Your task to perform on an android device: Do I have any events this weekend? Image 0: 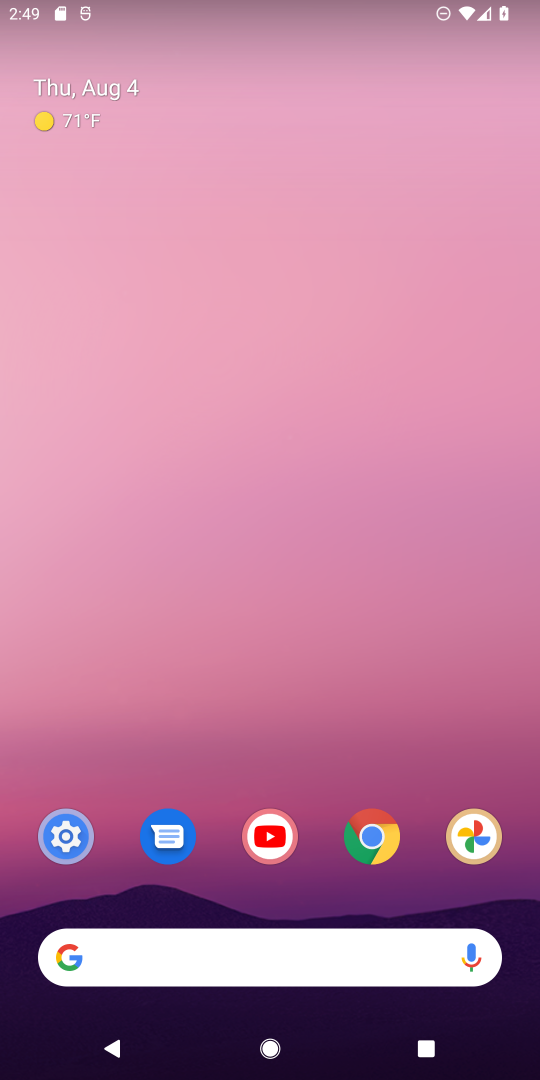
Step 0: drag from (218, 1013) to (244, 295)
Your task to perform on an android device: Do I have any events this weekend? Image 1: 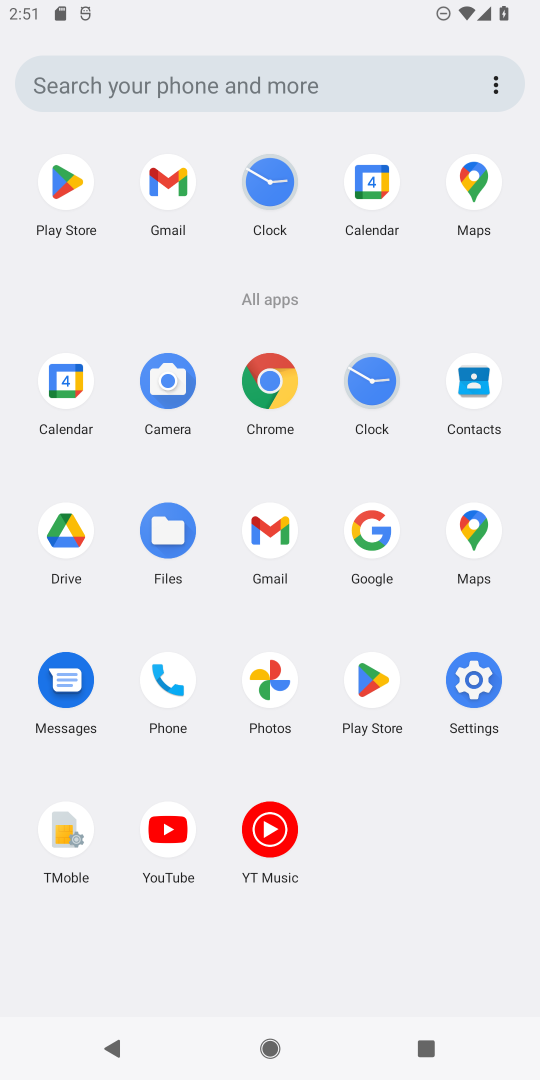
Step 1: click (72, 388)
Your task to perform on an android device: Do I have any events this weekend? Image 2: 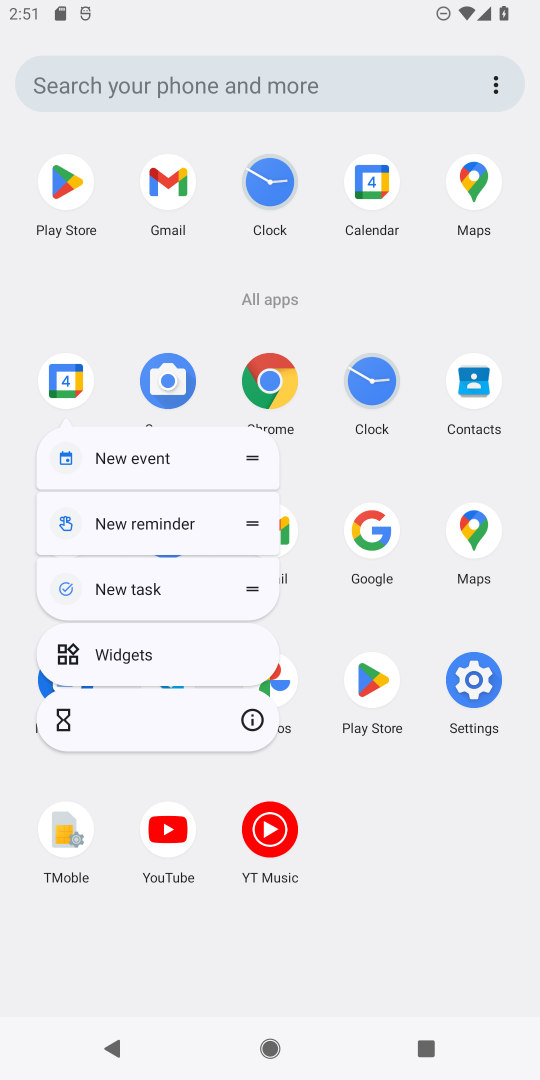
Step 2: click (72, 388)
Your task to perform on an android device: Do I have any events this weekend? Image 3: 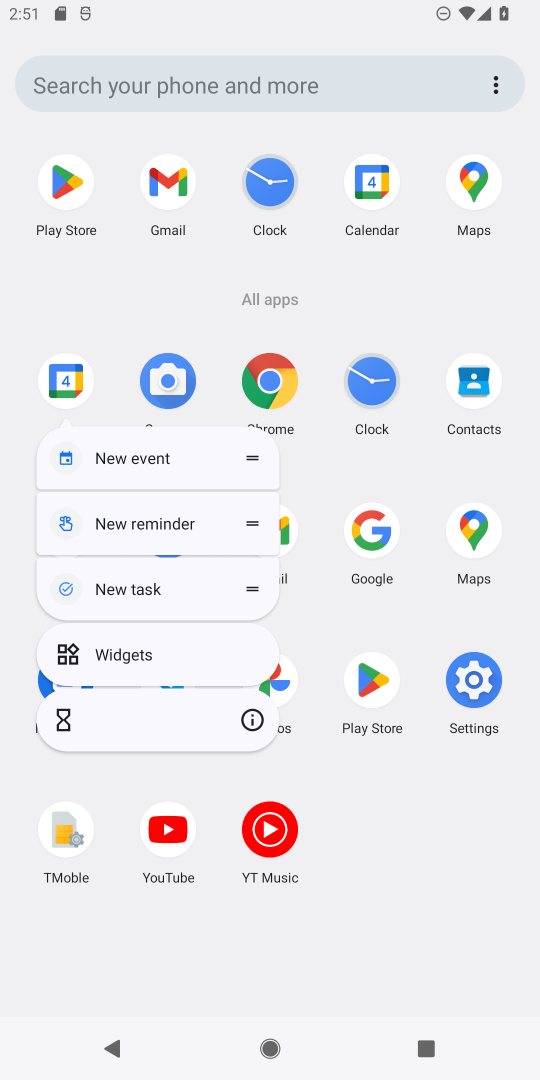
Step 3: click (72, 388)
Your task to perform on an android device: Do I have any events this weekend? Image 4: 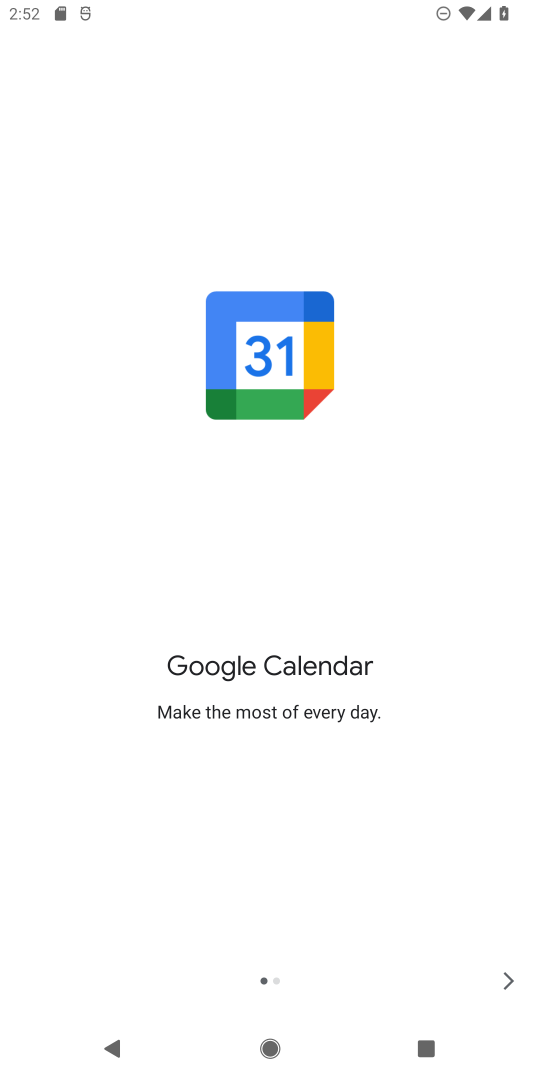
Step 4: click (510, 956)
Your task to perform on an android device: Do I have any events this weekend? Image 5: 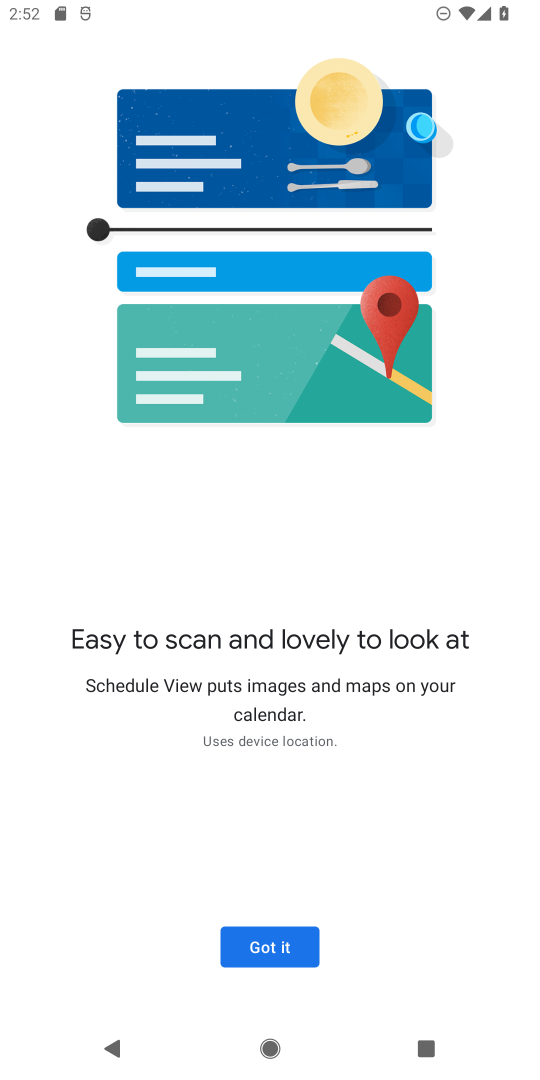
Step 5: click (508, 968)
Your task to perform on an android device: Do I have any events this weekend? Image 6: 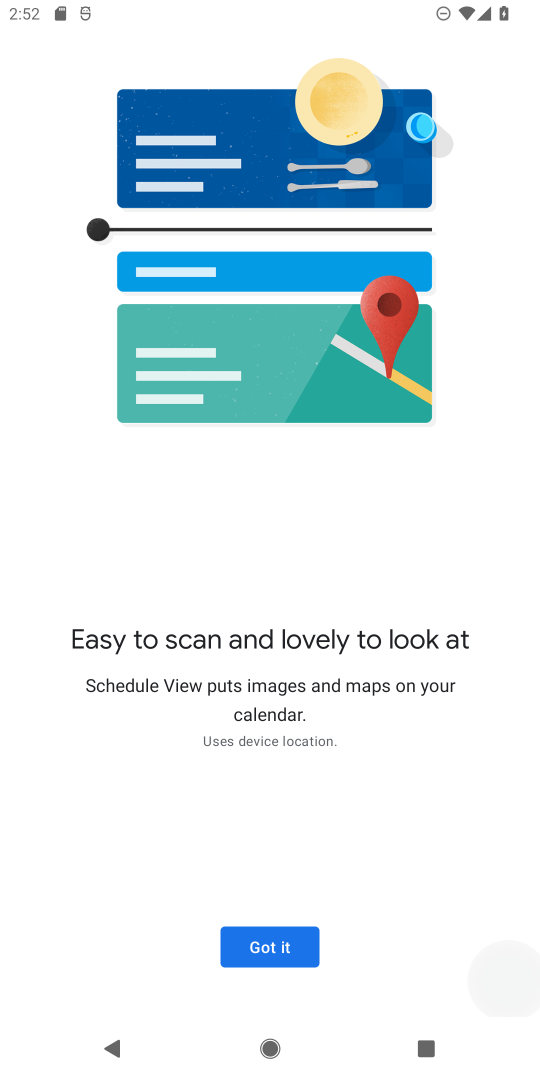
Step 6: click (299, 945)
Your task to perform on an android device: Do I have any events this weekend? Image 7: 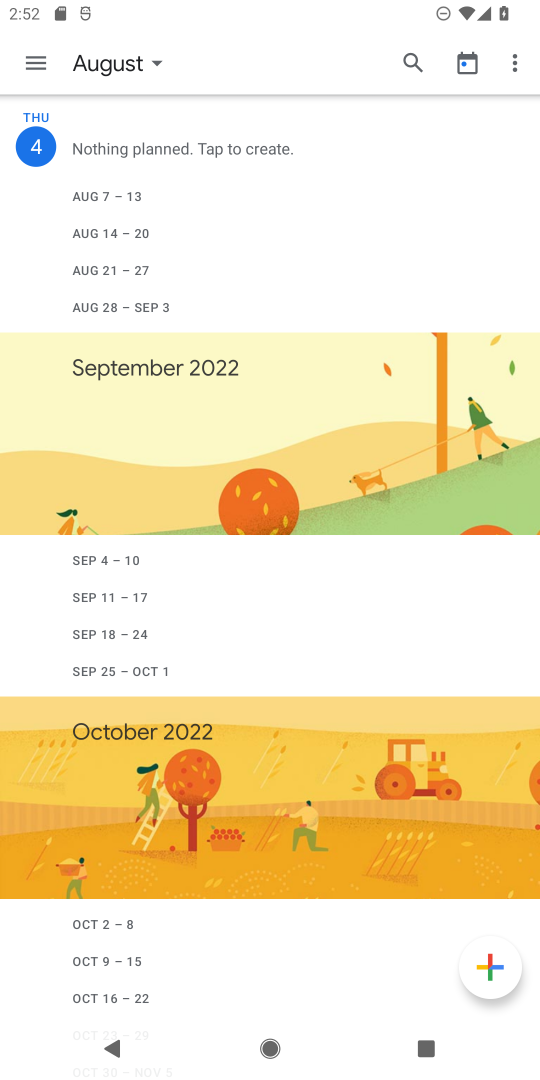
Step 7: click (120, 55)
Your task to perform on an android device: Do I have any events this weekend? Image 8: 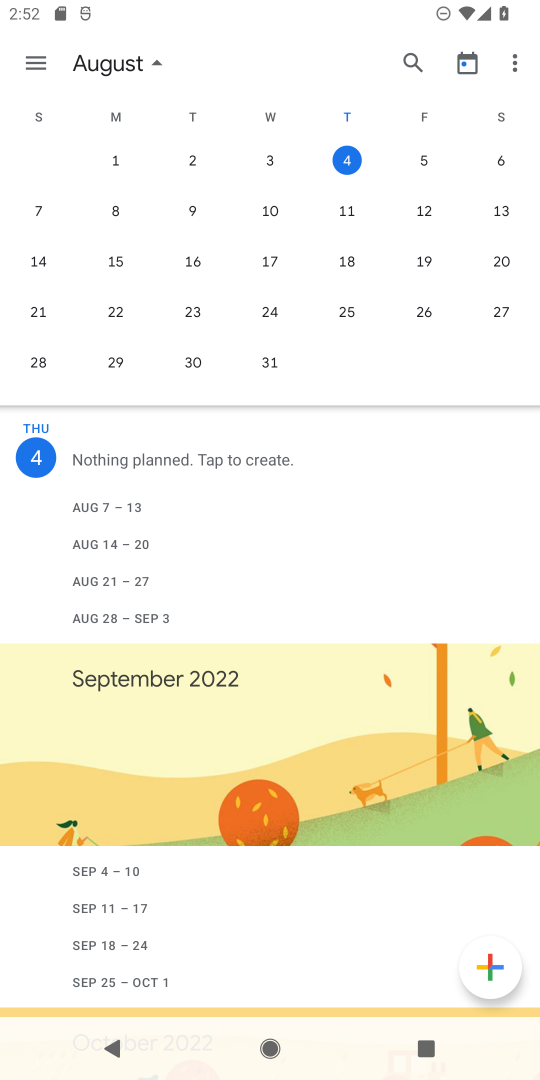
Step 8: click (503, 162)
Your task to perform on an android device: Do I have any events this weekend? Image 9: 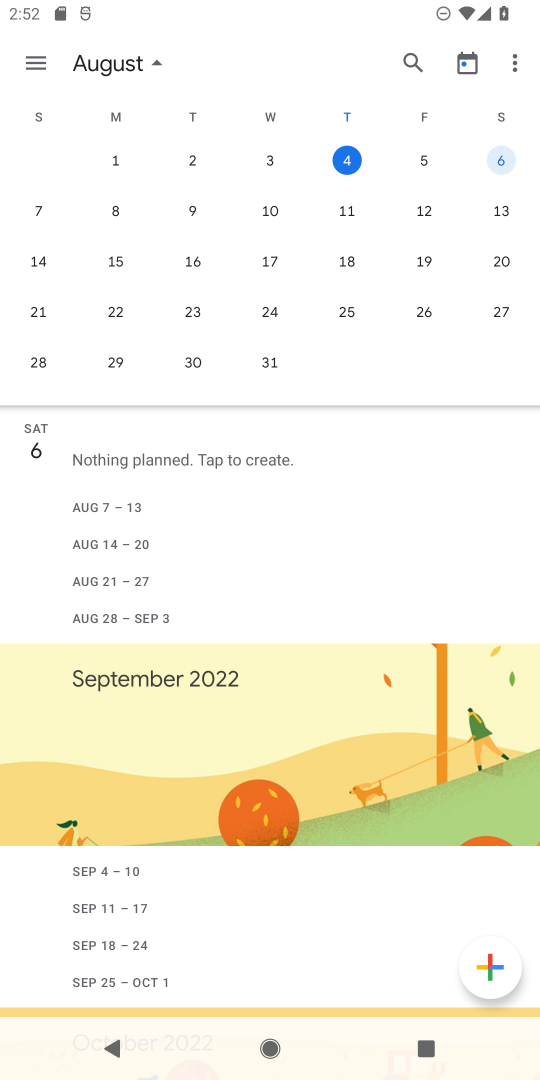
Step 9: task complete